Your task to perform on an android device: install app "Google Duo" Image 0: 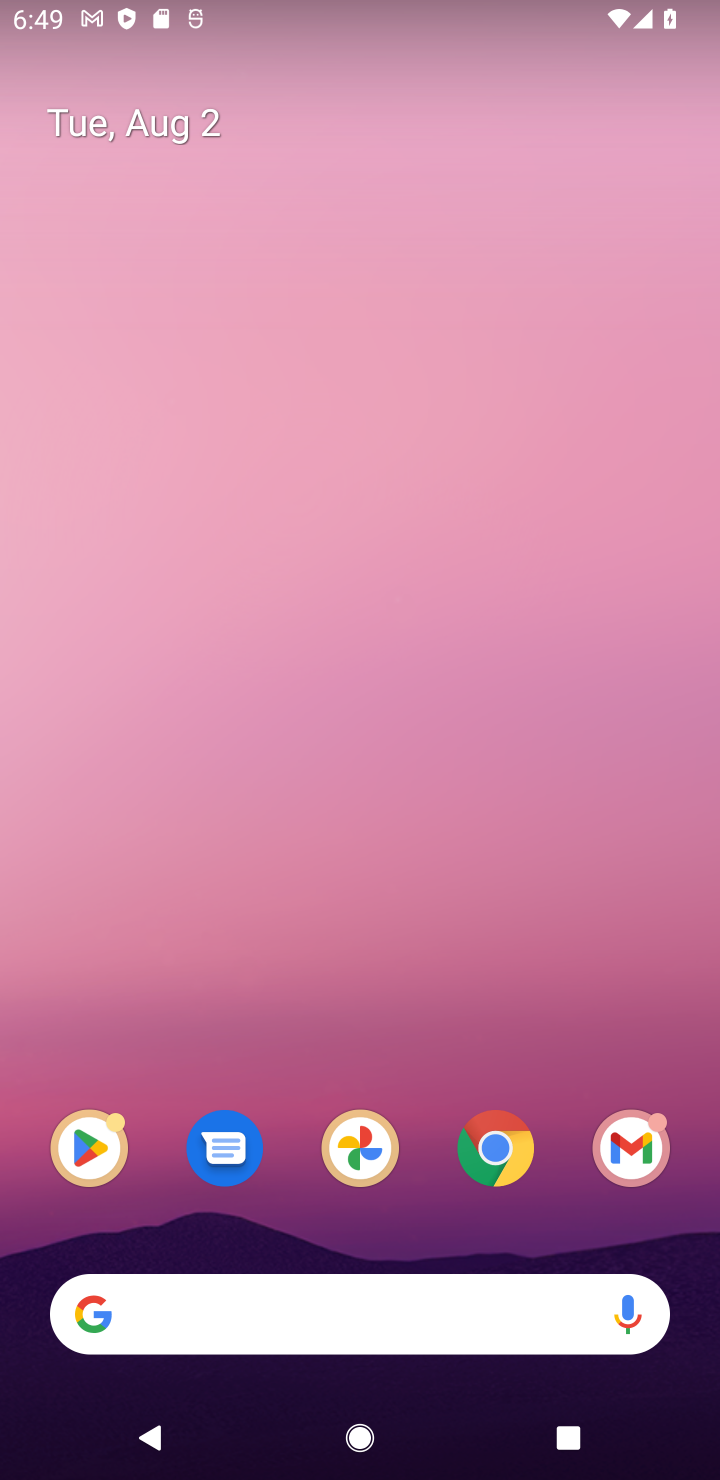
Step 0: drag from (505, 723) to (430, 69)
Your task to perform on an android device: install app "Google Duo" Image 1: 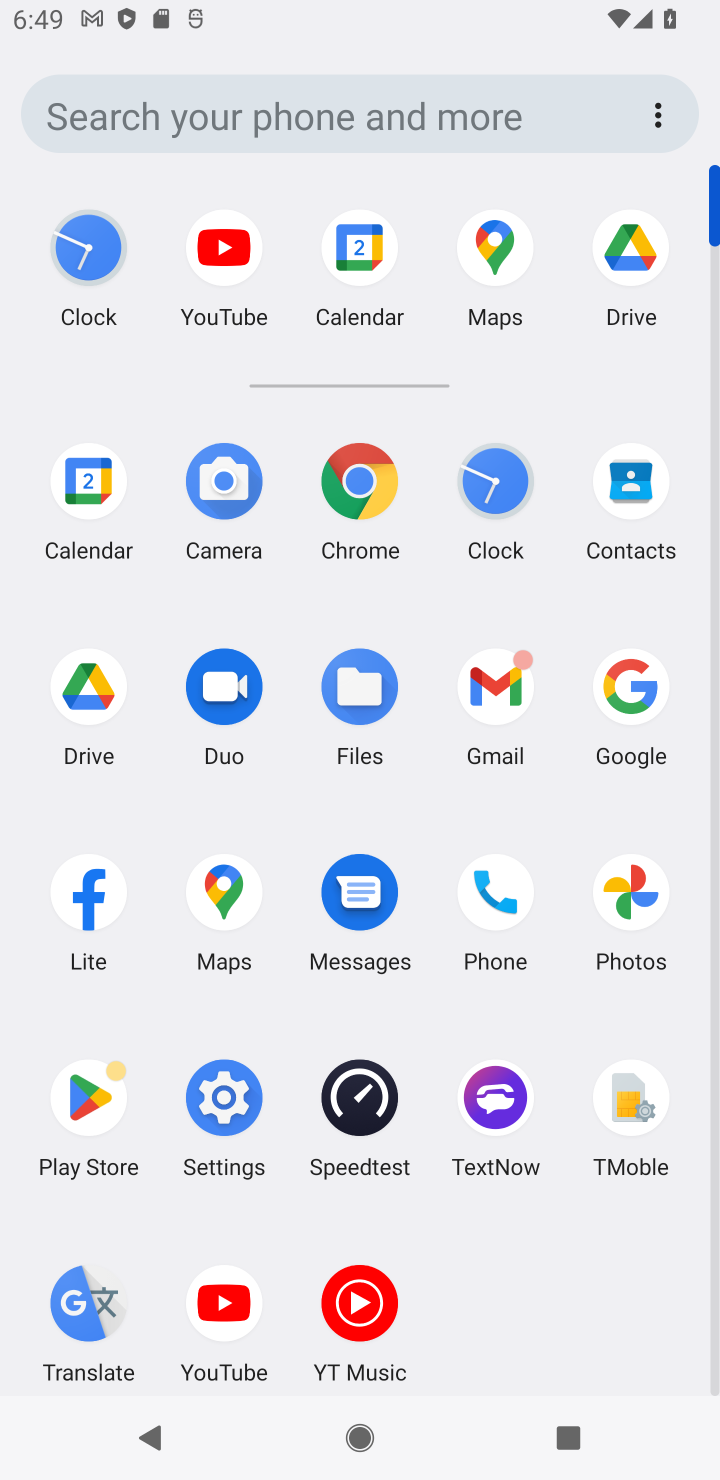
Step 1: click (53, 1098)
Your task to perform on an android device: install app "Google Duo" Image 2: 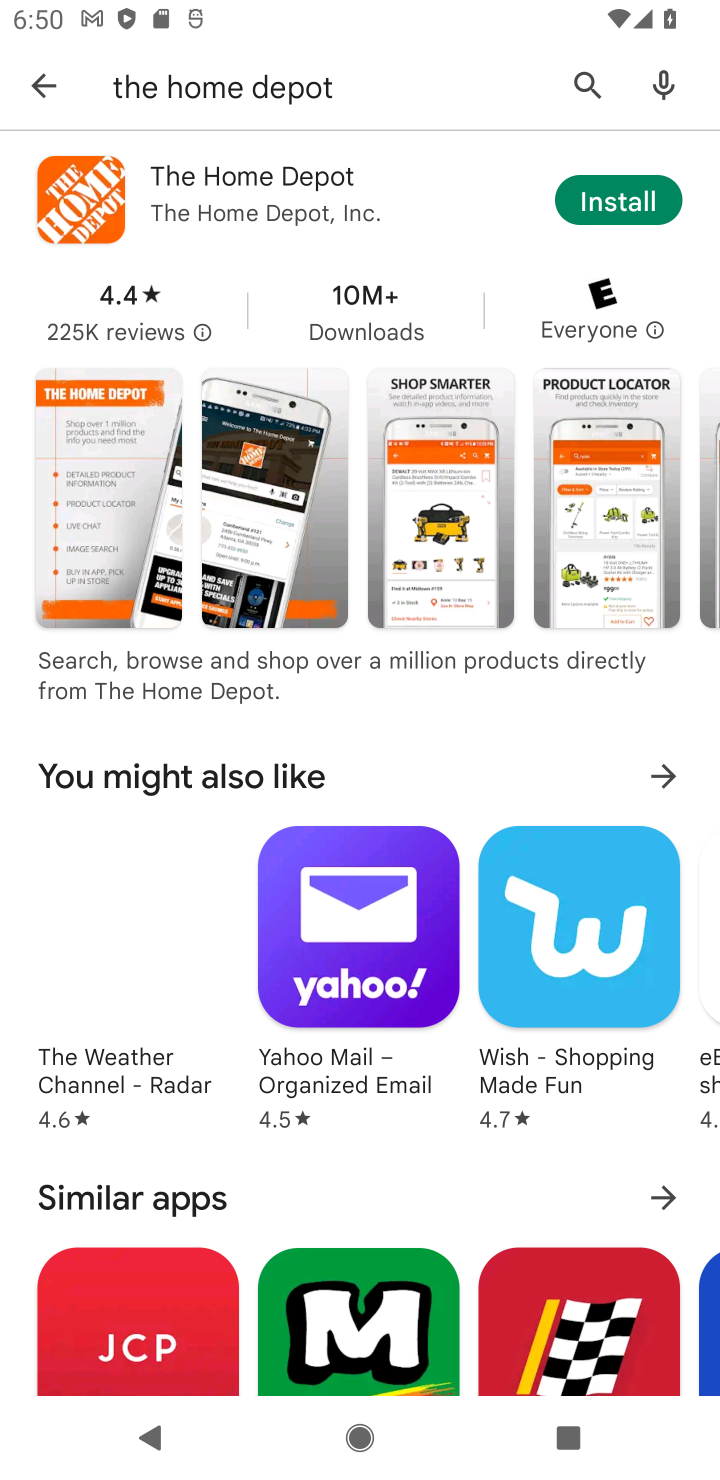
Step 2: press back button
Your task to perform on an android device: install app "Google Duo" Image 3: 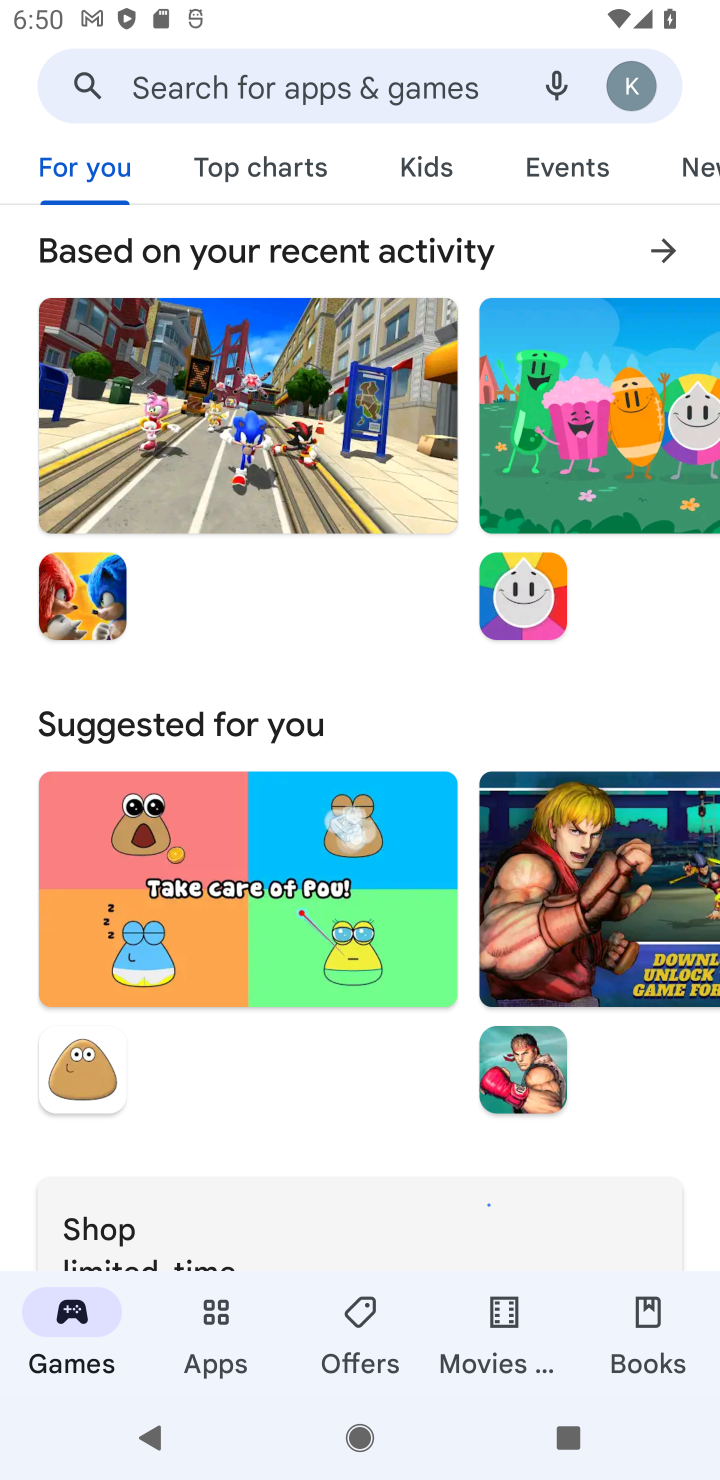
Step 3: click (279, 99)
Your task to perform on an android device: install app "Google Duo" Image 4: 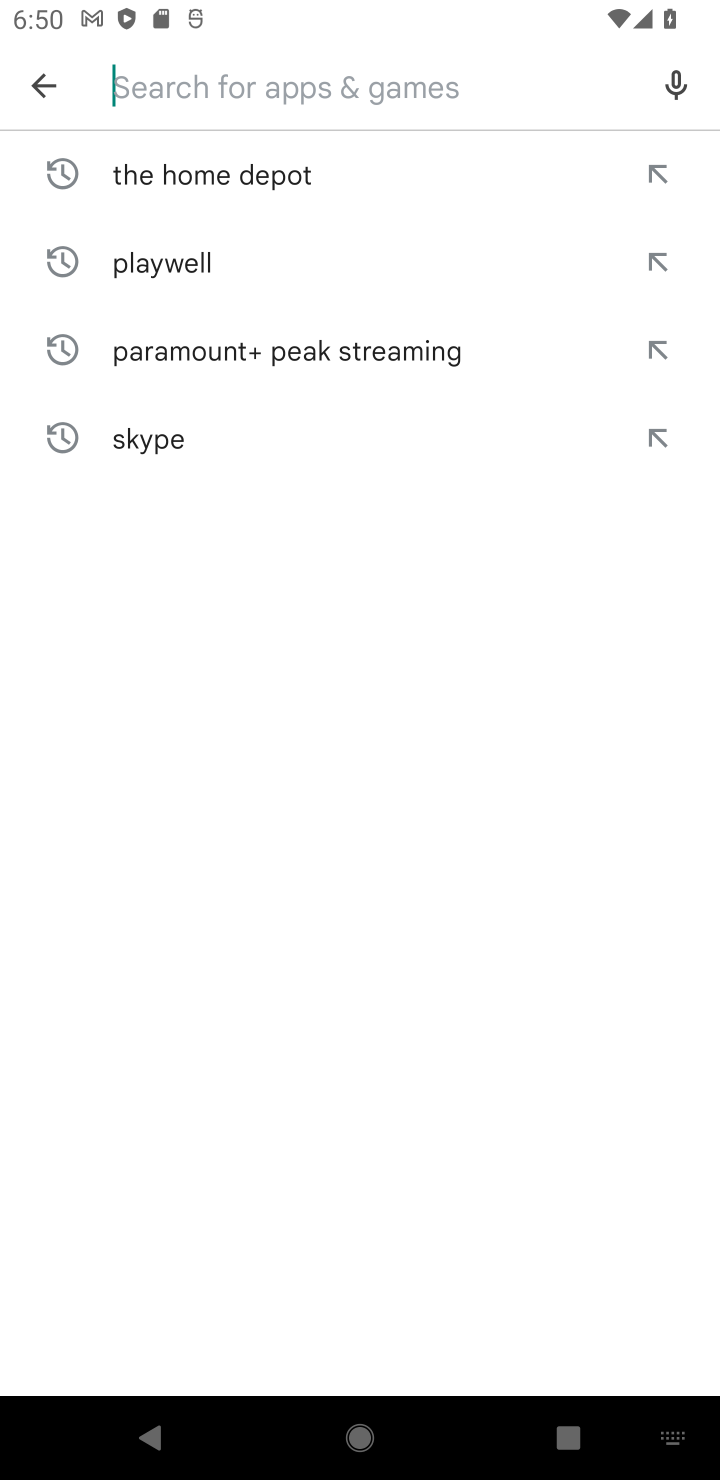
Step 4: type "Google Duo"
Your task to perform on an android device: install app "Google Duo" Image 5: 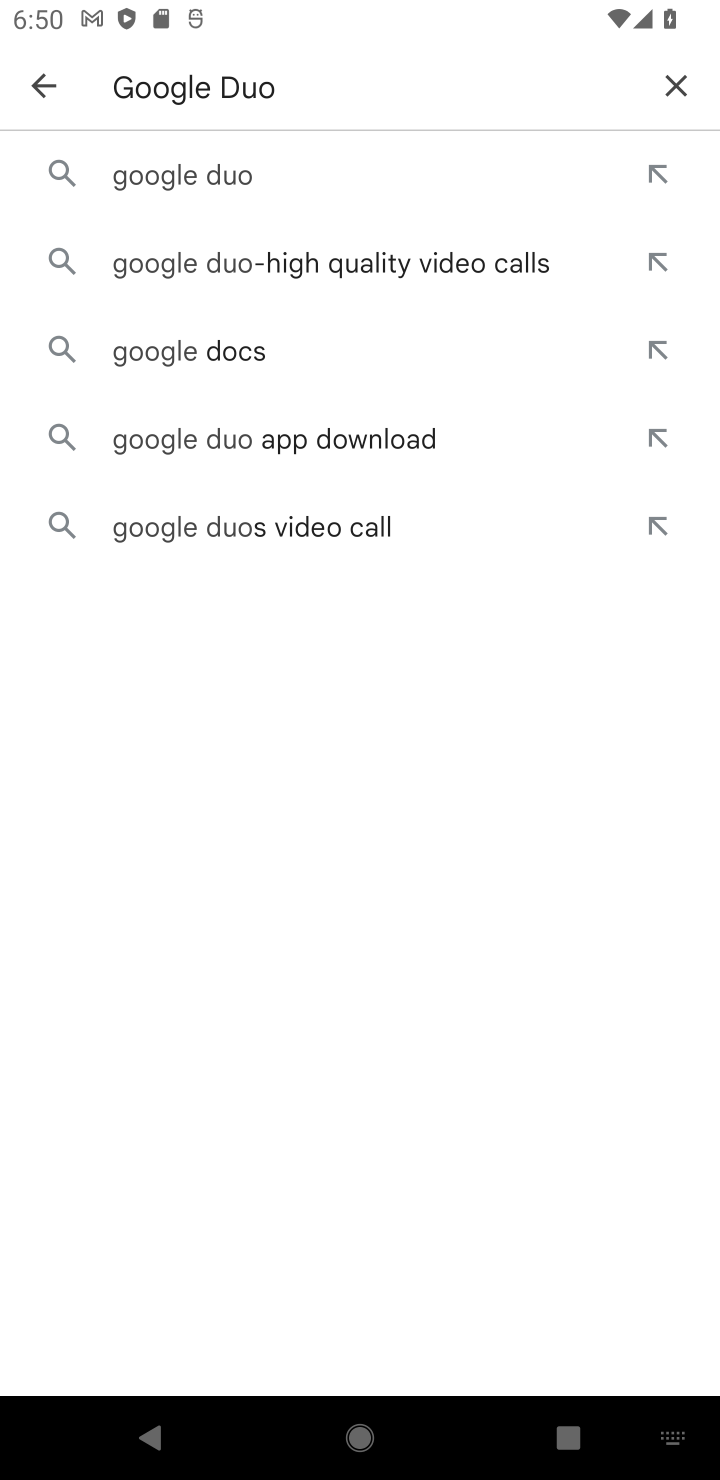
Step 5: click (204, 184)
Your task to perform on an android device: install app "Google Duo" Image 6: 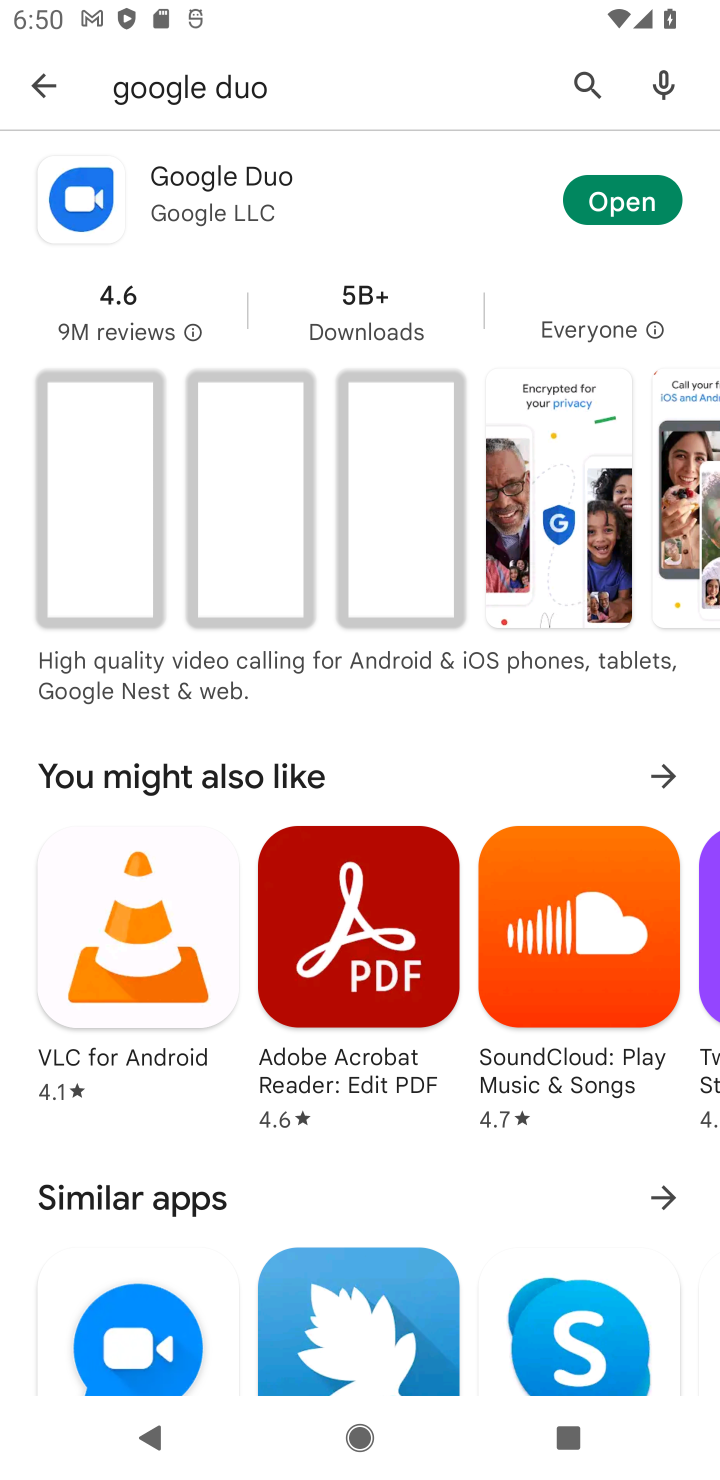
Step 6: task complete